Your task to perform on an android device: Search for "razer blade" on walmart, select the first entry, add it to the cart, then select checkout. Image 0: 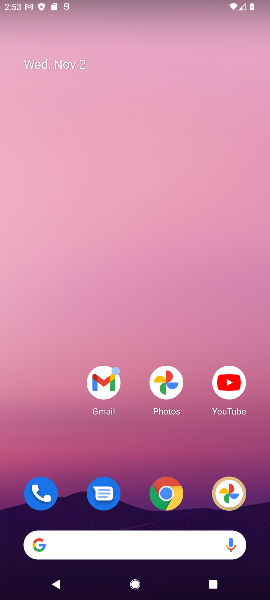
Step 0: click (162, 488)
Your task to perform on an android device: Search for "razer blade" on walmart, select the first entry, add it to the cart, then select checkout. Image 1: 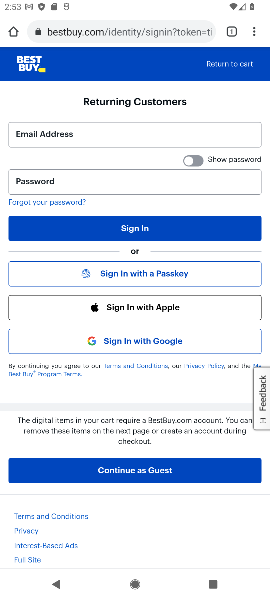
Step 1: click (141, 29)
Your task to perform on an android device: Search for "razer blade" on walmart, select the first entry, add it to the cart, then select checkout. Image 2: 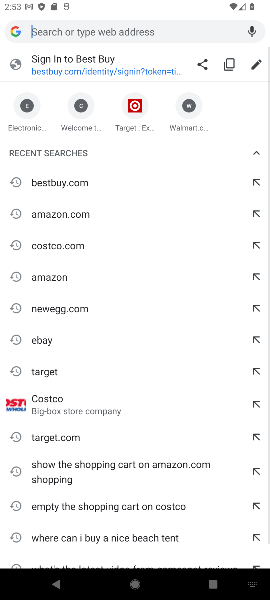
Step 2: type "walmart"
Your task to perform on an android device: Search for "razer blade" on walmart, select the first entry, add it to the cart, then select checkout. Image 3: 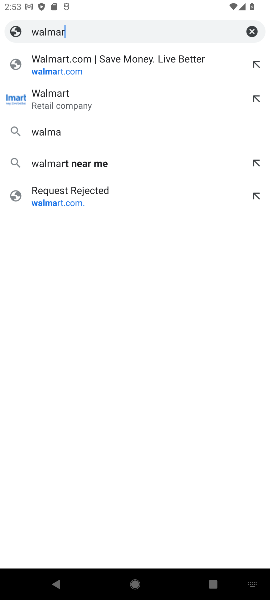
Step 3: press enter
Your task to perform on an android device: Search for "razer blade" on walmart, select the first entry, add it to the cart, then select checkout. Image 4: 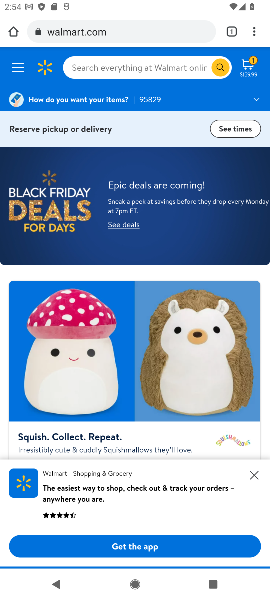
Step 4: click (160, 56)
Your task to perform on an android device: Search for "razer blade" on walmart, select the first entry, add it to the cart, then select checkout. Image 5: 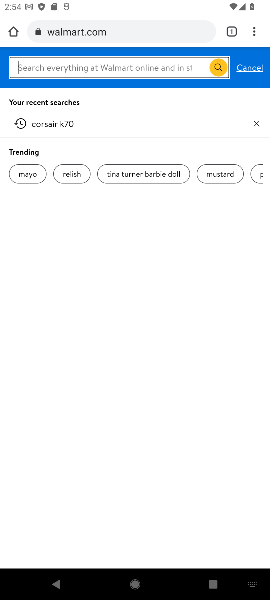
Step 5: press enter
Your task to perform on an android device: Search for "razer blade" on walmart, select the first entry, add it to the cart, then select checkout. Image 6: 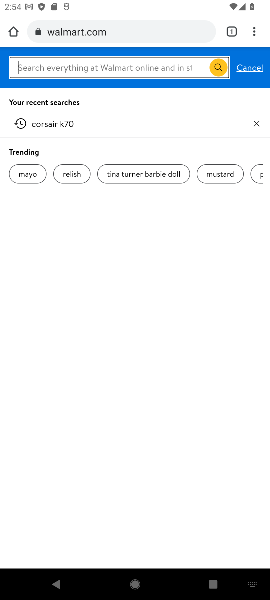
Step 6: type "razer blade"
Your task to perform on an android device: Search for "razer blade" on walmart, select the first entry, add it to the cart, then select checkout. Image 7: 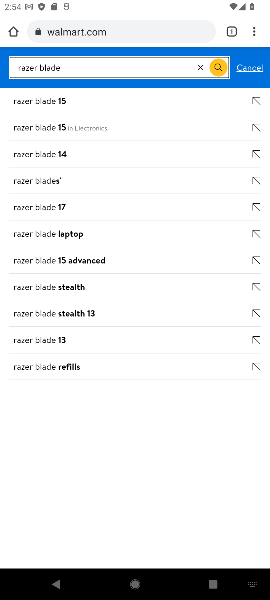
Step 7: click (202, 436)
Your task to perform on an android device: Search for "razer blade" on walmart, select the first entry, add it to the cart, then select checkout. Image 8: 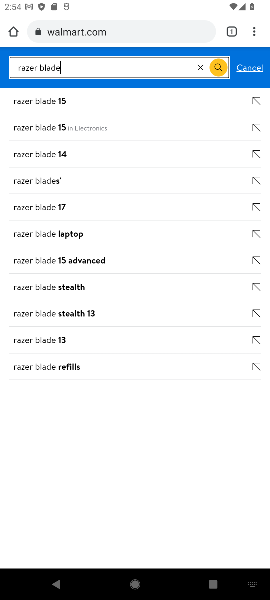
Step 8: click (180, 67)
Your task to perform on an android device: Search for "razer blade" on walmart, select the first entry, add it to the cart, then select checkout. Image 9: 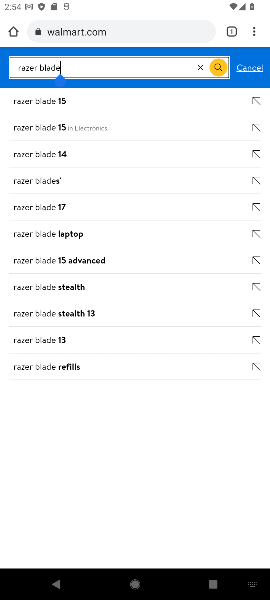
Step 9: click (114, 368)
Your task to perform on an android device: Search for "razer blade" on walmart, select the first entry, add it to the cart, then select checkout. Image 10: 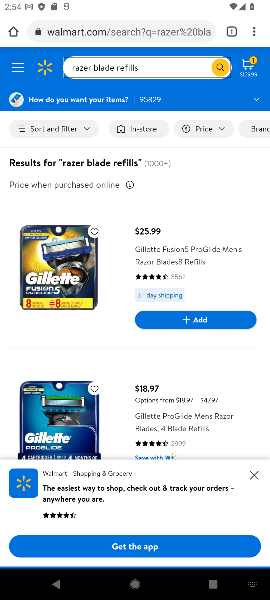
Step 10: click (65, 278)
Your task to perform on an android device: Search for "razer blade" on walmart, select the first entry, add it to the cart, then select checkout. Image 11: 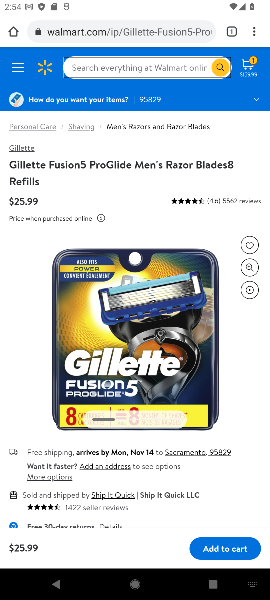
Step 11: click (228, 546)
Your task to perform on an android device: Search for "razer blade" on walmart, select the first entry, add it to the cart, then select checkout. Image 12: 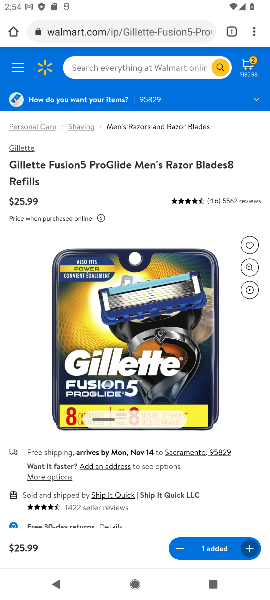
Step 12: click (249, 65)
Your task to perform on an android device: Search for "razer blade" on walmart, select the first entry, add it to the cart, then select checkout. Image 13: 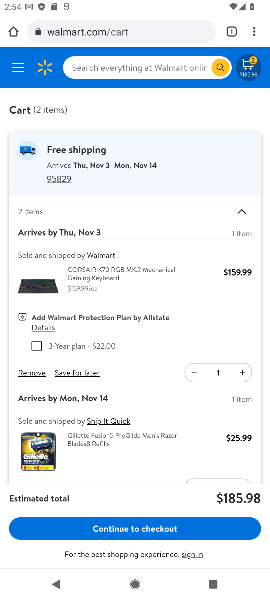
Step 13: click (210, 531)
Your task to perform on an android device: Search for "razer blade" on walmart, select the first entry, add it to the cart, then select checkout. Image 14: 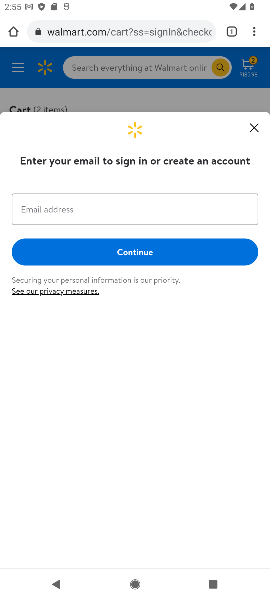
Step 14: click (251, 127)
Your task to perform on an android device: Search for "razer blade" on walmart, select the first entry, add it to the cart, then select checkout. Image 15: 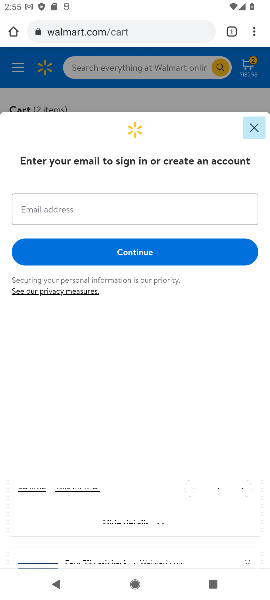
Step 15: task complete